Your task to perform on an android device: Go to settings Image 0: 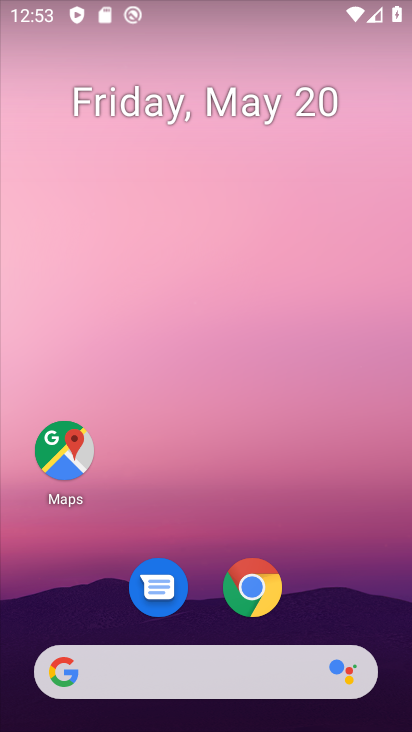
Step 0: drag from (320, 525) to (220, 105)
Your task to perform on an android device: Go to settings Image 1: 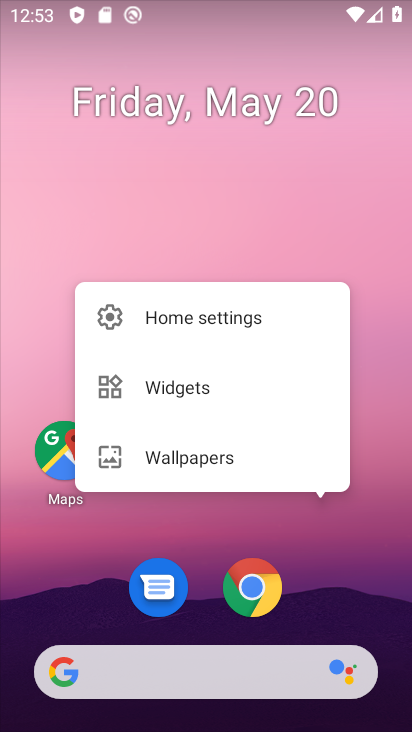
Step 1: click (368, 327)
Your task to perform on an android device: Go to settings Image 2: 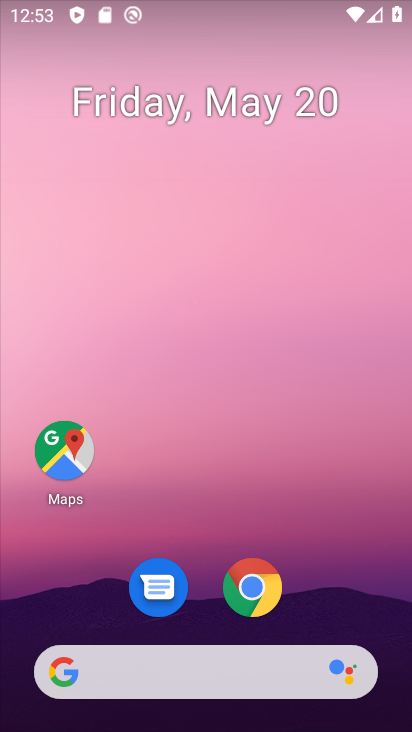
Step 2: click (368, 327)
Your task to perform on an android device: Go to settings Image 3: 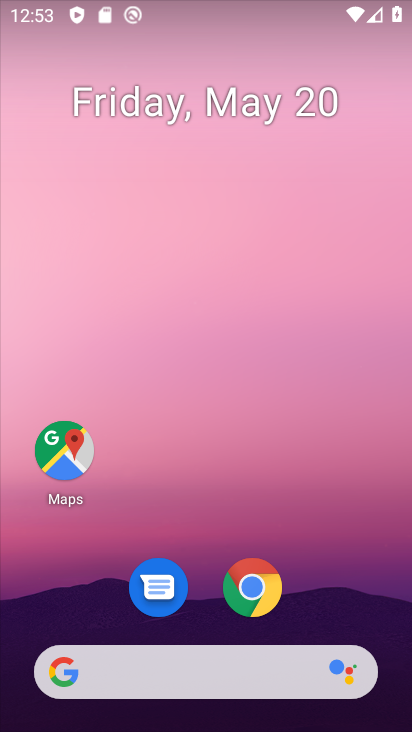
Step 3: drag from (195, 495) to (202, 24)
Your task to perform on an android device: Go to settings Image 4: 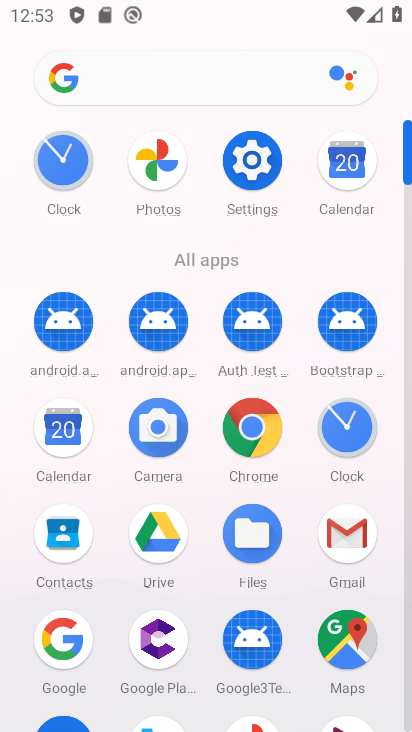
Step 4: click (248, 160)
Your task to perform on an android device: Go to settings Image 5: 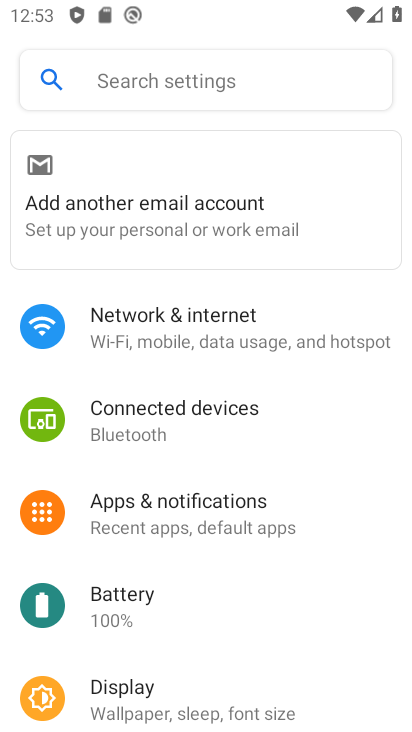
Step 5: task complete